Your task to perform on an android device: Find coffee shops on Maps Image 0: 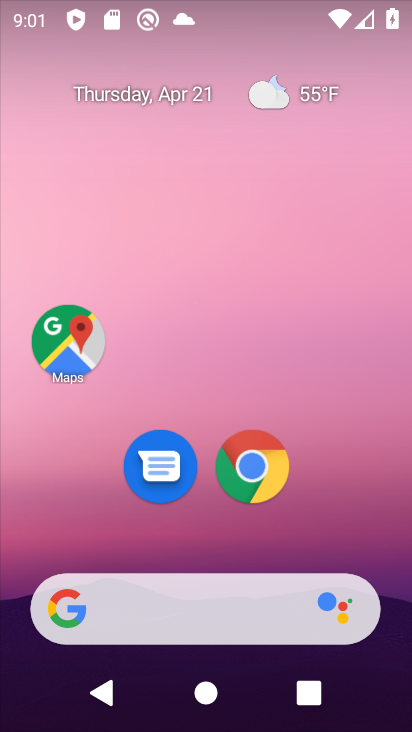
Step 0: click (82, 342)
Your task to perform on an android device: Find coffee shops on Maps Image 1: 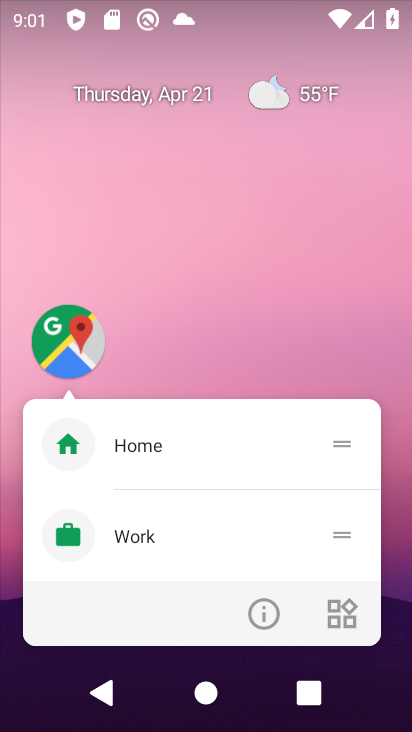
Step 1: click (65, 361)
Your task to perform on an android device: Find coffee shops on Maps Image 2: 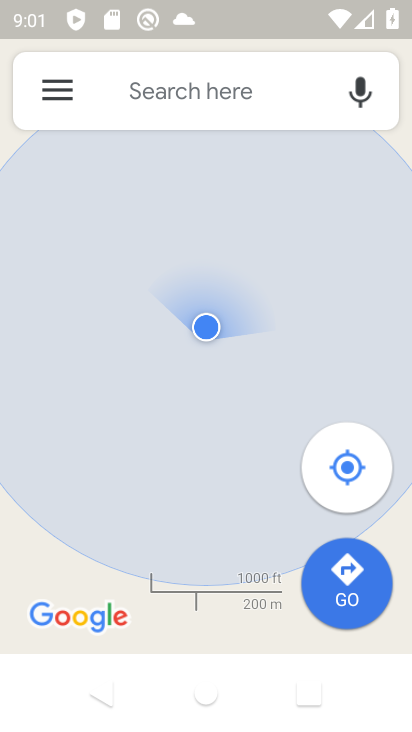
Step 2: click (193, 108)
Your task to perform on an android device: Find coffee shops on Maps Image 3: 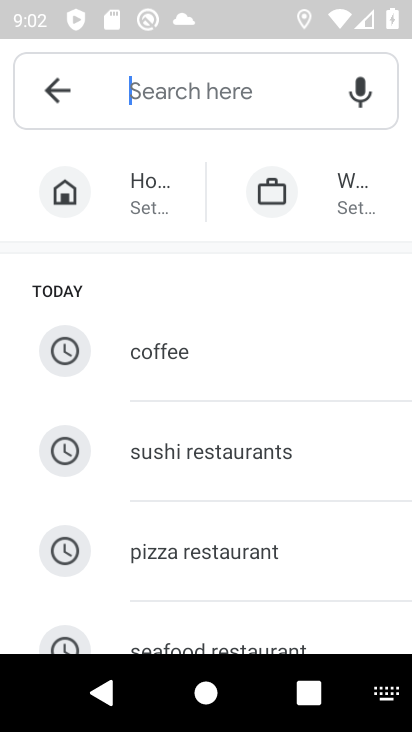
Step 3: type "coffee shops"
Your task to perform on an android device: Find coffee shops on Maps Image 4: 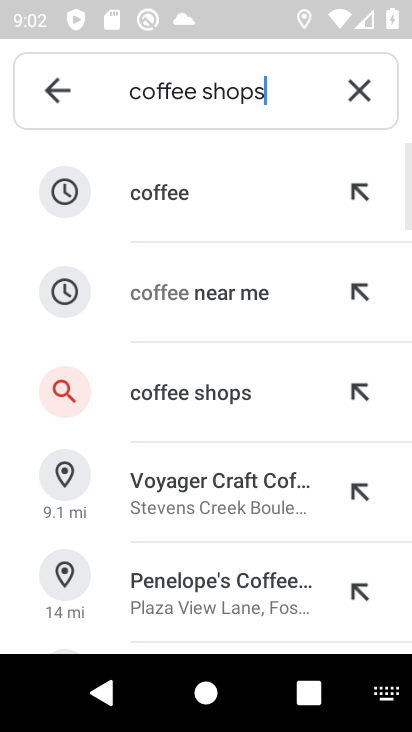
Step 4: click (225, 396)
Your task to perform on an android device: Find coffee shops on Maps Image 5: 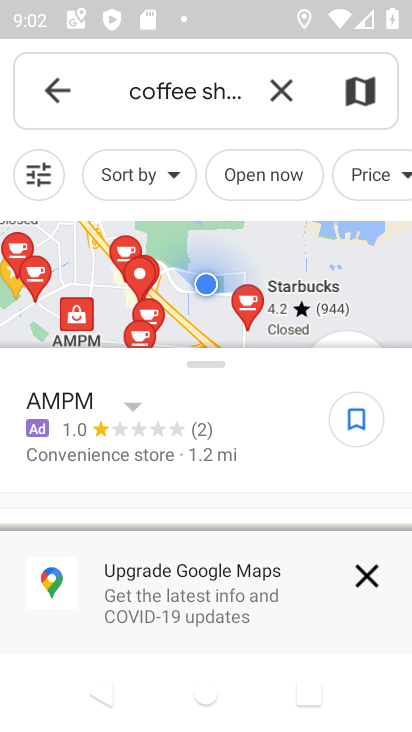
Step 5: task complete